Your task to perform on an android device: turn on translation in the chrome app Image 0: 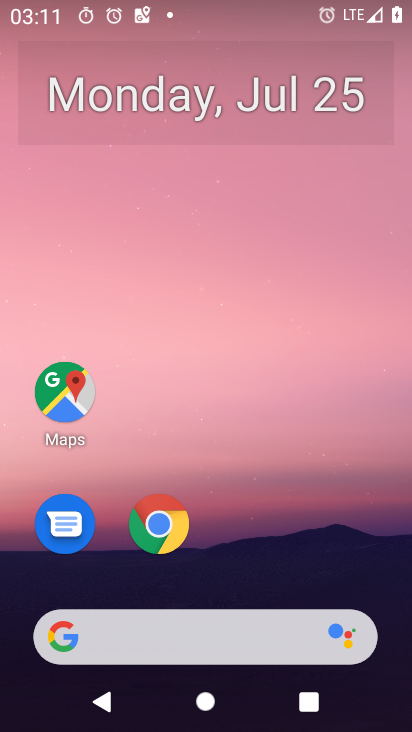
Step 0: press home button
Your task to perform on an android device: turn on translation in the chrome app Image 1: 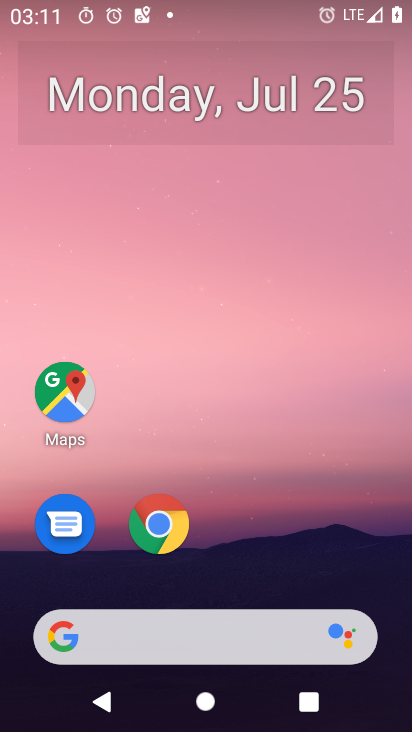
Step 1: drag from (231, 571) to (215, 24)
Your task to perform on an android device: turn on translation in the chrome app Image 2: 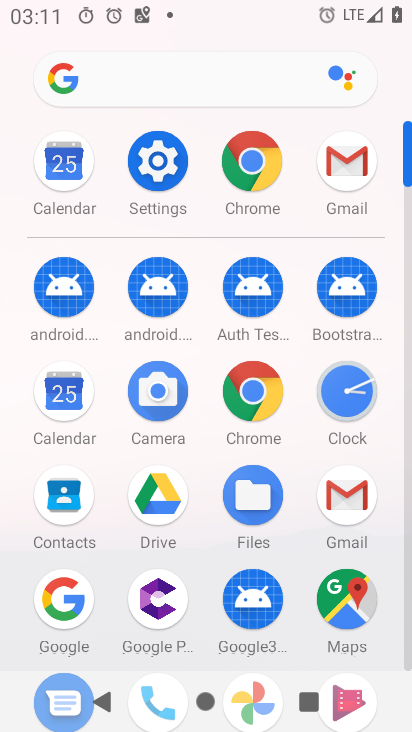
Step 2: click (251, 166)
Your task to perform on an android device: turn on translation in the chrome app Image 3: 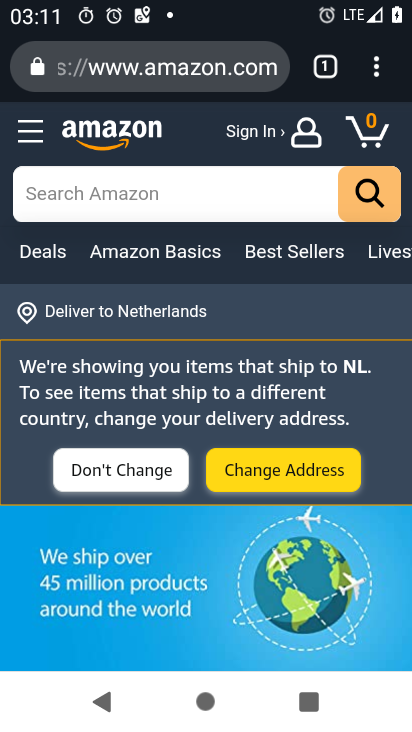
Step 3: drag from (387, 74) to (158, 541)
Your task to perform on an android device: turn on translation in the chrome app Image 4: 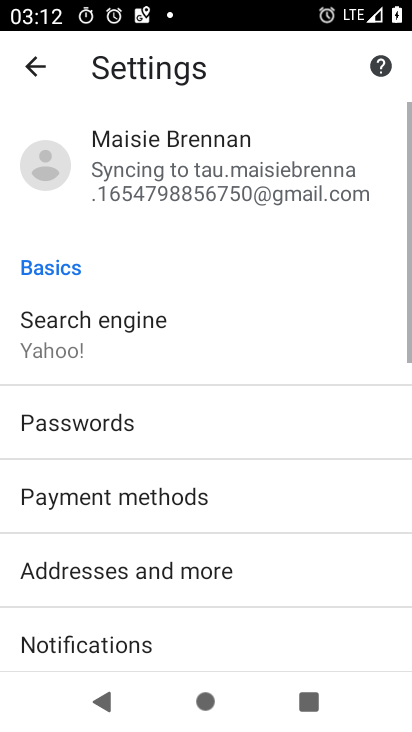
Step 4: drag from (305, 647) to (291, 91)
Your task to perform on an android device: turn on translation in the chrome app Image 5: 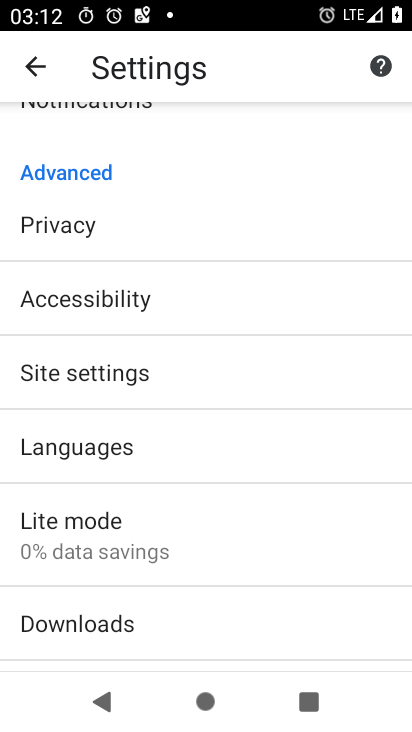
Step 5: click (75, 452)
Your task to perform on an android device: turn on translation in the chrome app Image 6: 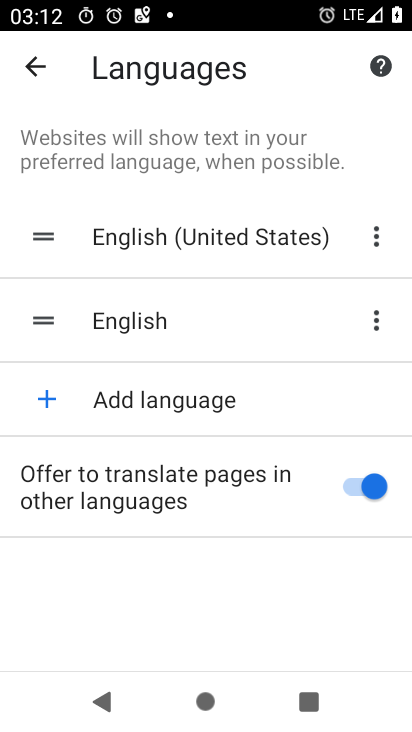
Step 6: task complete